Your task to perform on an android device: turn on location history Image 0: 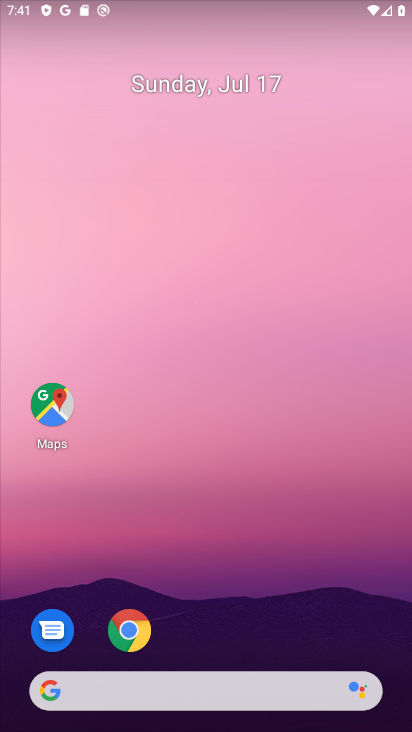
Step 0: click (249, 55)
Your task to perform on an android device: turn on location history Image 1: 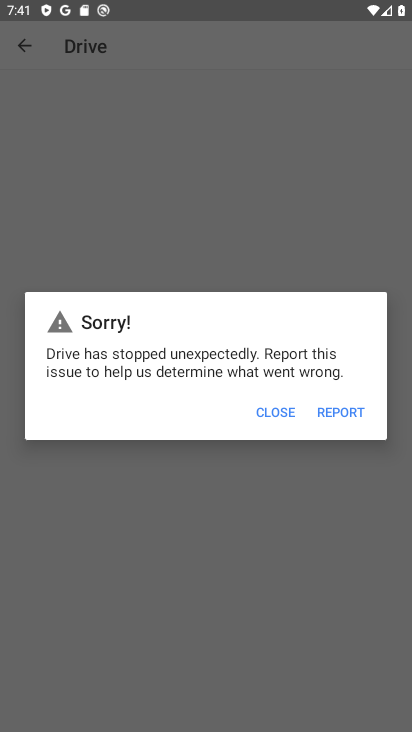
Step 1: press back button
Your task to perform on an android device: turn on location history Image 2: 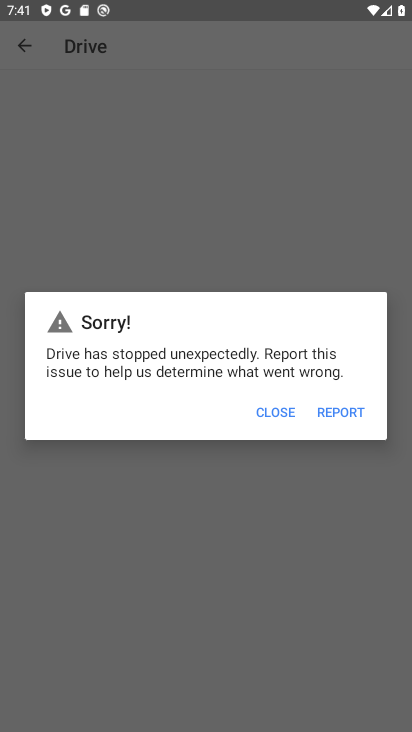
Step 2: click (273, 415)
Your task to perform on an android device: turn on location history Image 3: 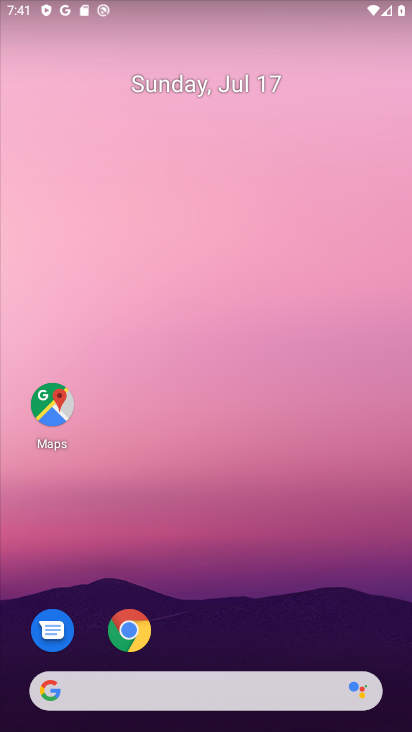
Step 3: drag from (192, 578) to (219, 91)
Your task to perform on an android device: turn on location history Image 4: 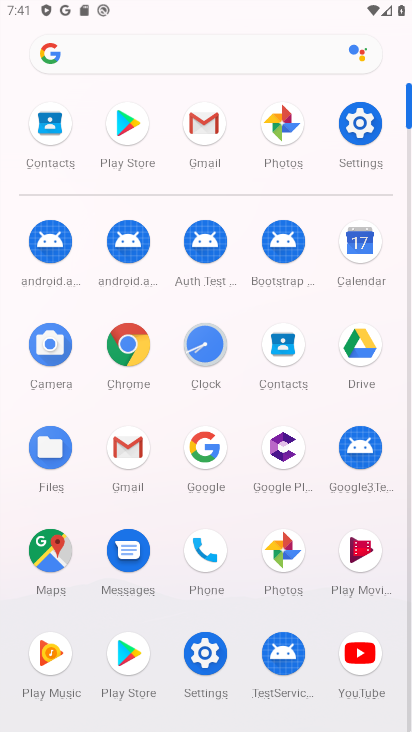
Step 4: click (361, 128)
Your task to perform on an android device: turn on location history Image 5: 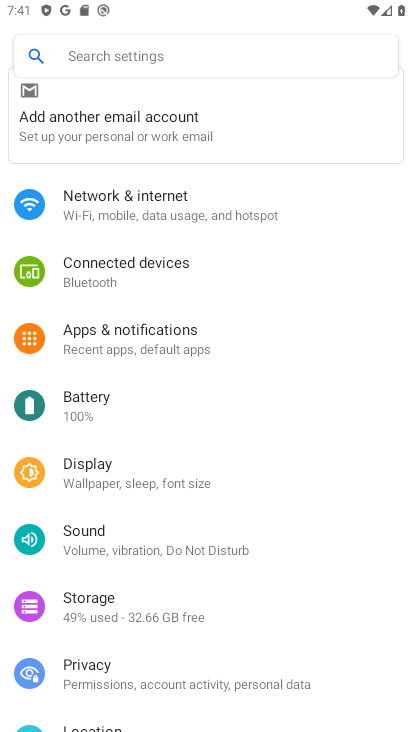
Step 5: drag from (117, 550) to (119, 393)
Your task to perform on an android device: turn on location history Image 6: 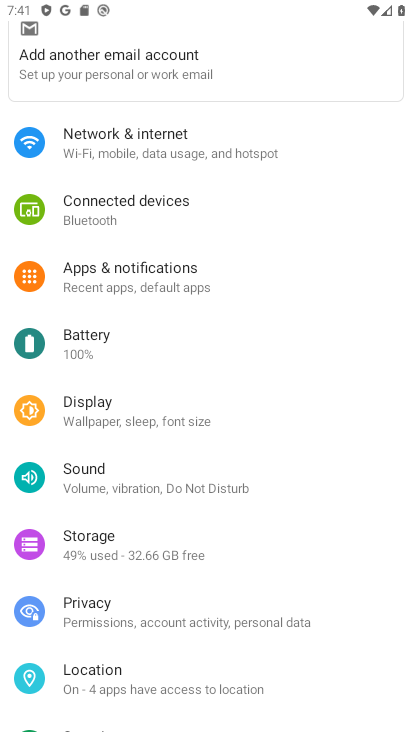
Step 6: click (87, 684)
Your task to perform on an android device: turn on location history Image 7: 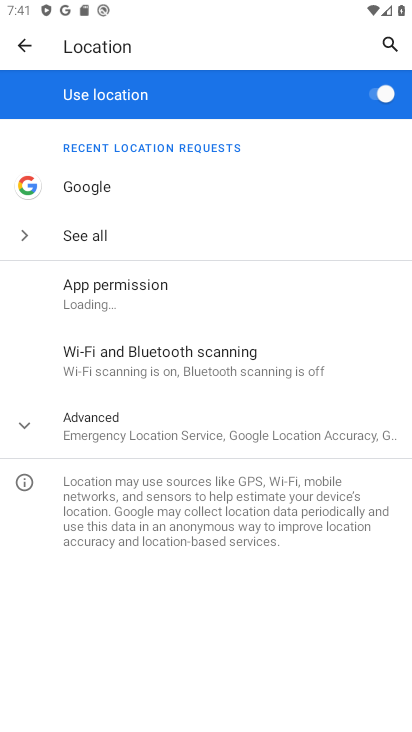
Step 7: click (117, 424)
Your task to perform on an android device: turn on location history Image 8: 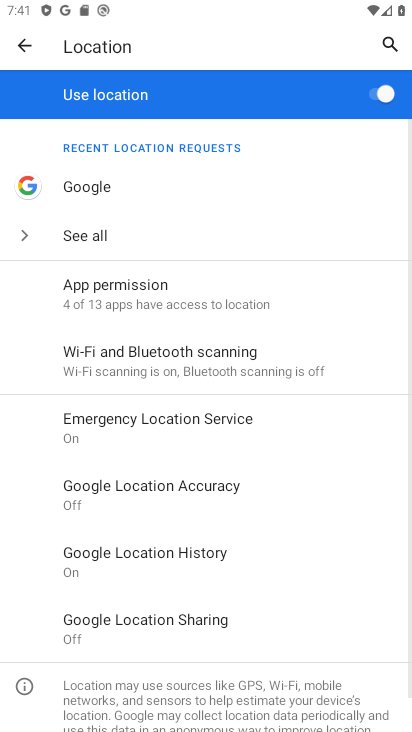
Step 8: click (144, 566)
Your task to perform on an android device: turn on location history Image 9: 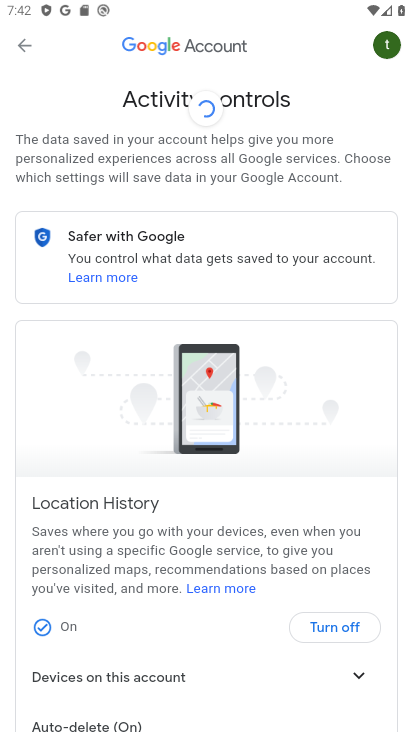
Step 9: task complete